Your task to perform on an android device: Turn off the flashlight Image 0: 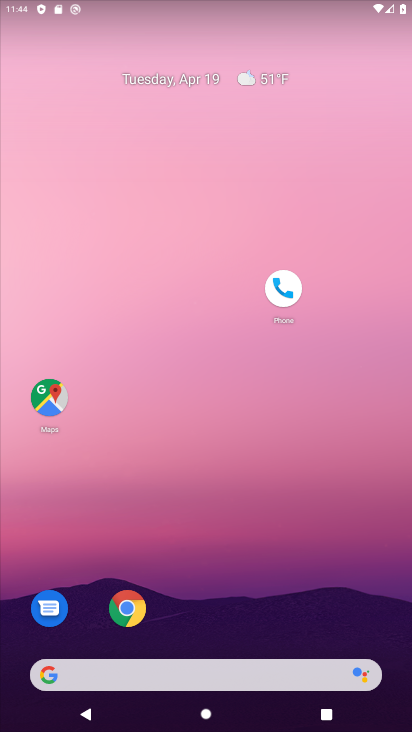
Step 0: drag from (239, 638) to (250, 77)
Your task to perform on an android device: Turn off the flashlight Image 1: 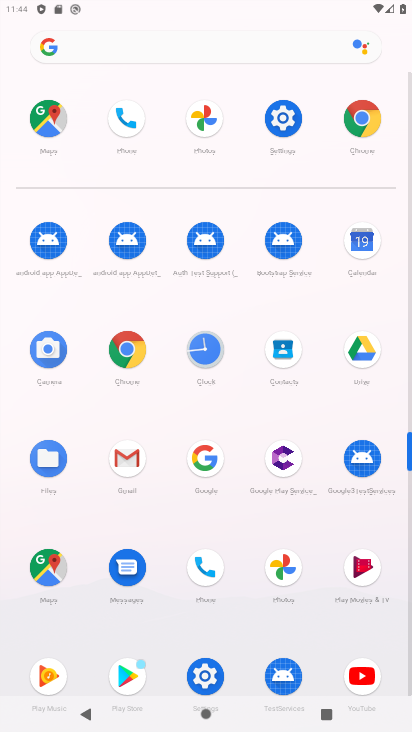
Step 1: click (276, 112)
Your task to perform on an android device: Turn off the flashlight Image 2: 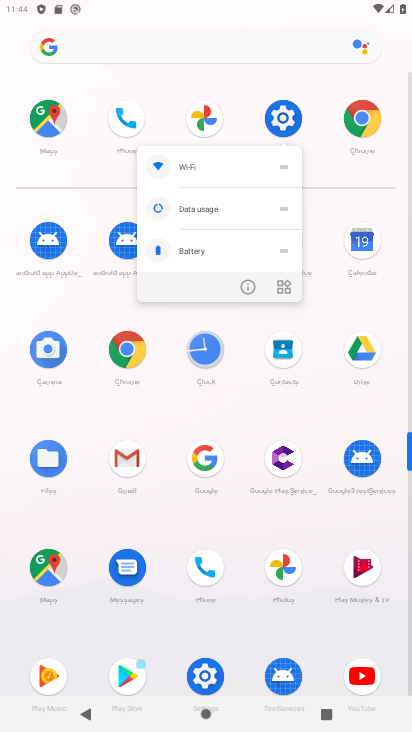
Step 2: click (270, 117)
Your task to perform on an android device: Turn off the flashlight Image 3: 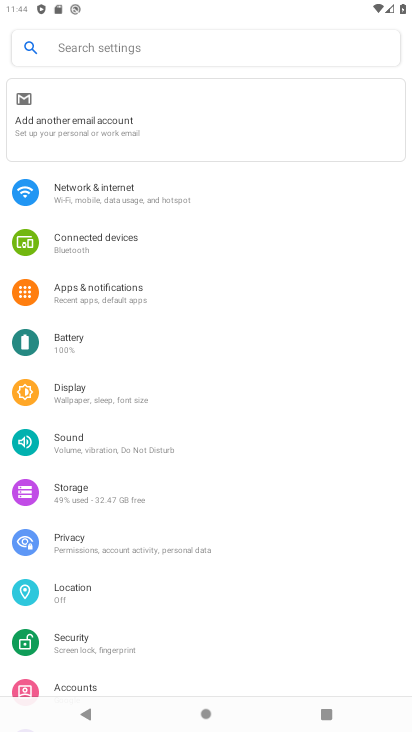
Step 3: click (89, 394)
Your task to perform on an android device: Turn off the flashlight Image 4: 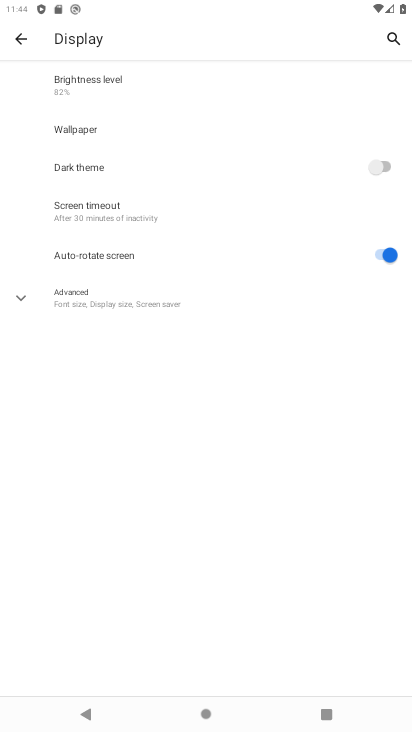
Step 4: task complete